Your task to perform on an android device: delete a single message in the gmail app Image 0: 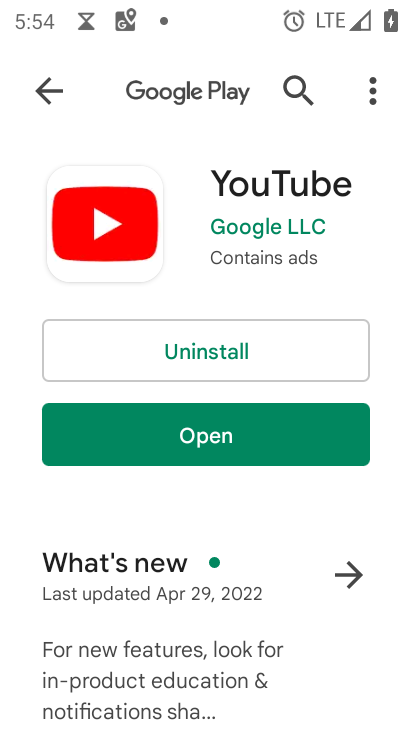
Step 0: press home button
Your task to perform on an android device: delete a single message in the gmail app Image 1: 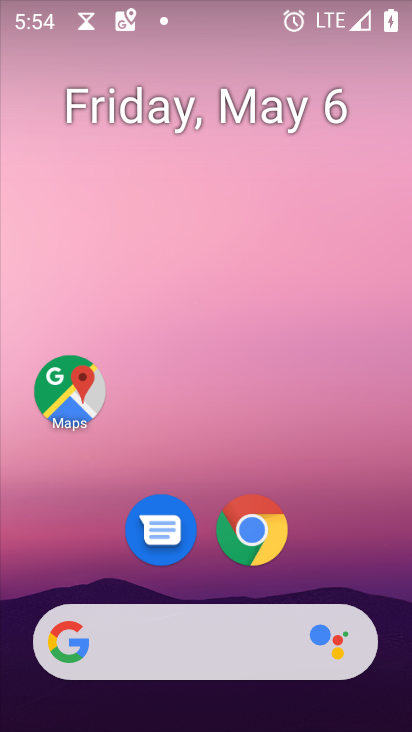
Step 1: drag from (353, 554) to (199, 86)
Your task to perform on an android device: delete a single message in the gmail app Image 2: 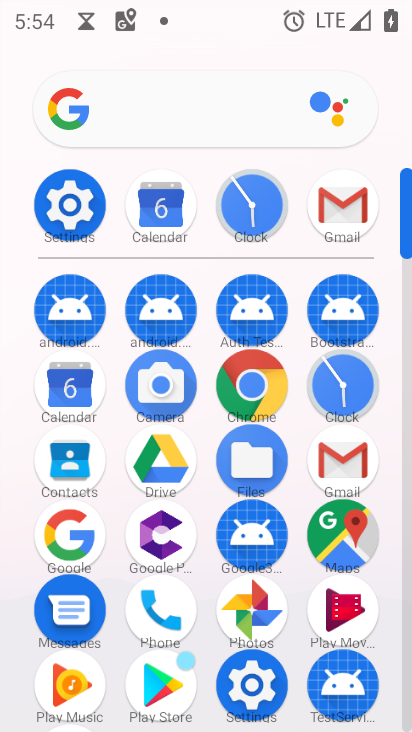
Step 2: click (344, 452)
Your task to perform on an android device: delete a single message in the gmail app Image 3: 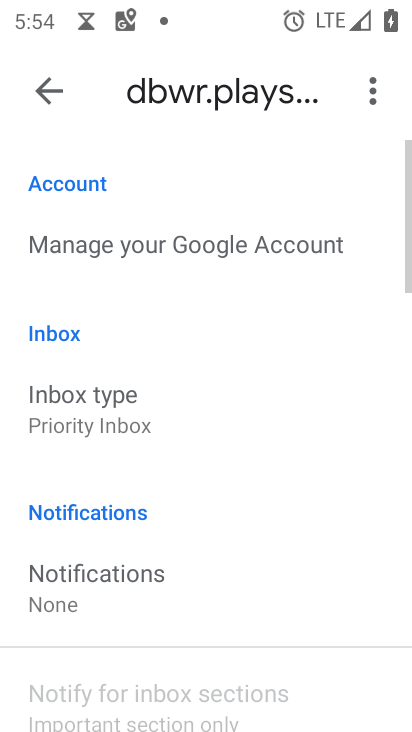
Step 3: click (51, 82)
Your task to perform on an android device: delete a single message in the gmail app Image 4: 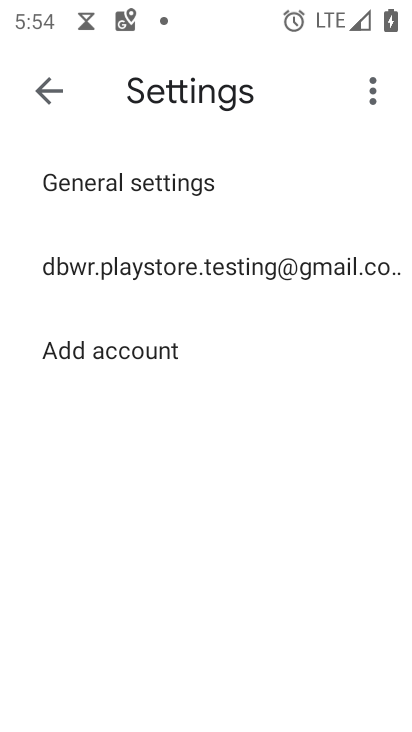
Step 4: click (50, 83)
Your task to perform on an android device: delete a single message in the gmail app Image 5: 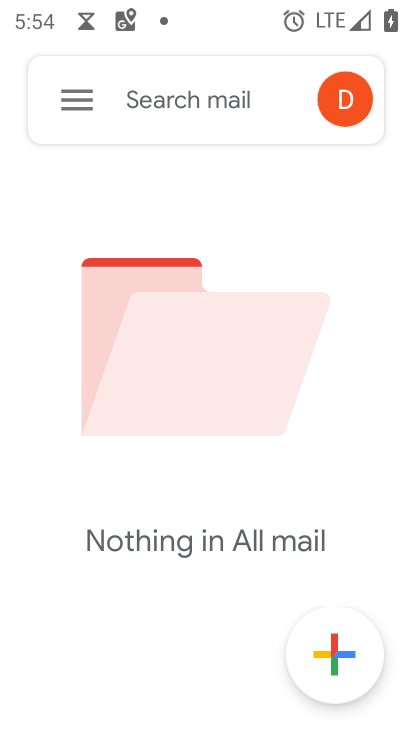
Step 5: click (81, 106)
Your task to perform on an android device: delete a single message in the gmail app Image 6: 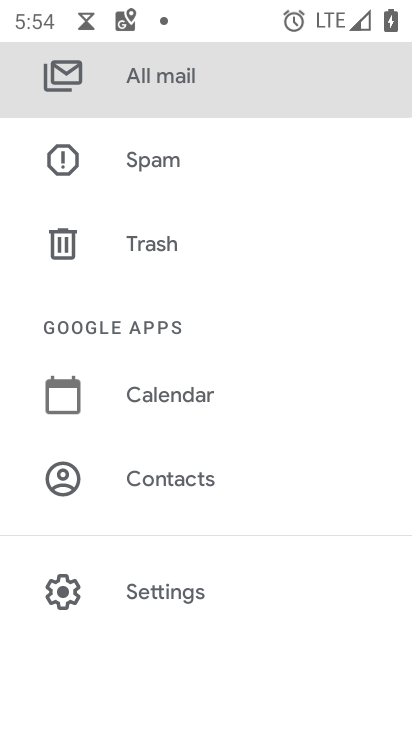
Step 6: click (201, 102)
Your task to perform on an android device: delete a single message in the gmail app Image 7: 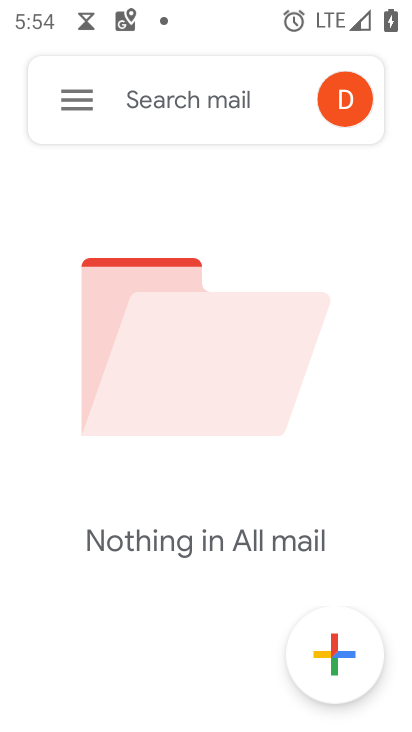
Step 7: task complete